Your task to perform on an android device: Open the web browser Image 0: 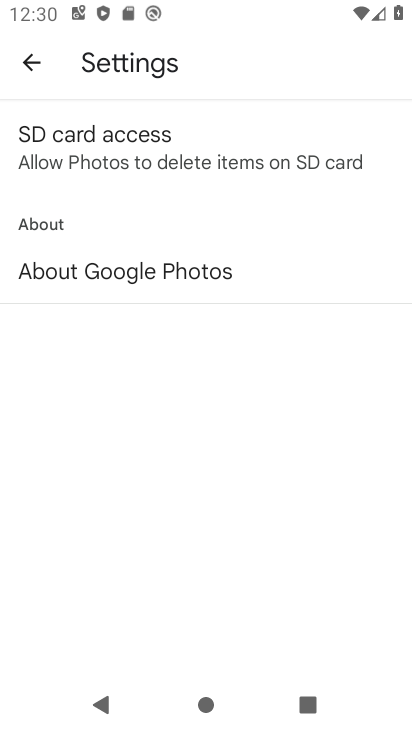
Step 0: press home button
Your task to perform on an android device: Open the web browser Image 1: 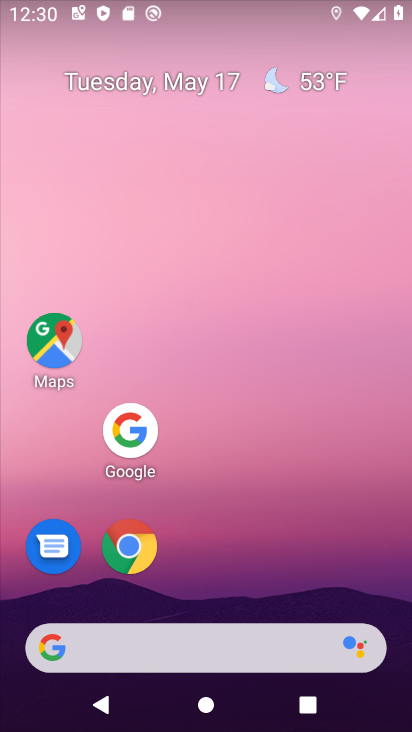
Step 1: click (121, 429)
Your task to perform on an android device: Open the web browser Image 2: 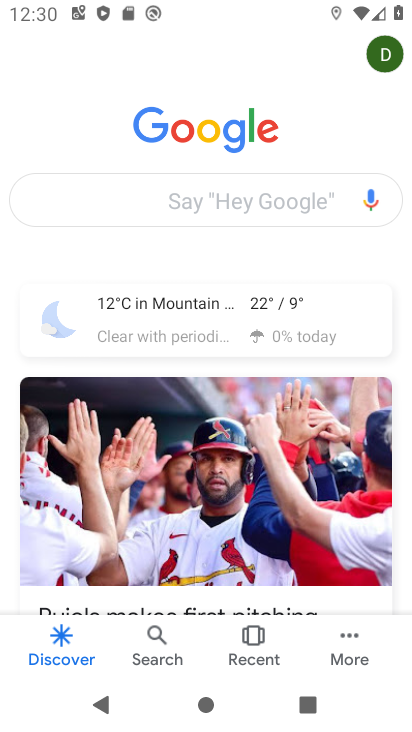
Step 2: task complete